Your task to perform on an android device: turn off priority inbox in the gmail app Image 0: 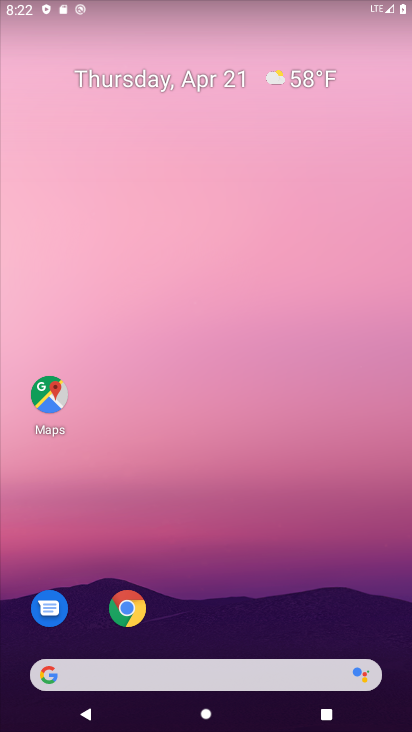
Step 0: drag from (295, 626) to (246, 51)
Your task to perform on an android device: turn off priority inbox in the gmail app Image 1: 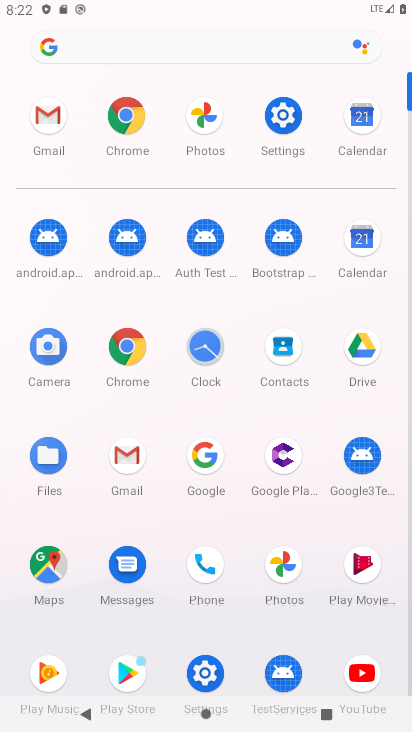
Step 1: click (52, 113)
Your task to perform on an android device: turn off priority inbox in the gmail app Image 2: 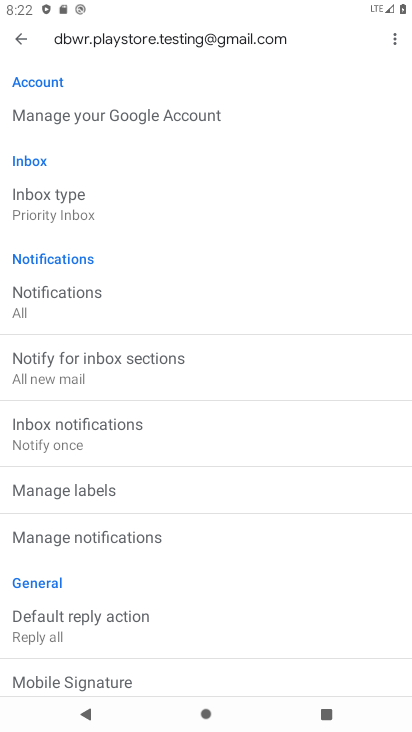
Step 2: click (53, 199)
Your task to perform on an android device: turn off priority inbox in the gmail app Image 3: 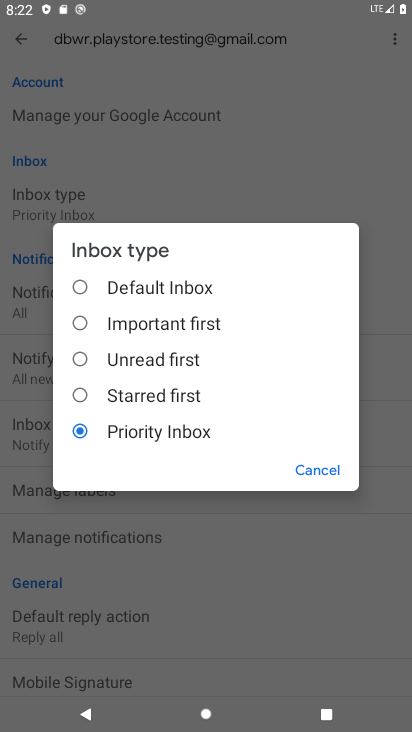
Step 3: click (78, 280)
Your task to perform on an android device: turn off priority inbox in the gmail app Image 4: 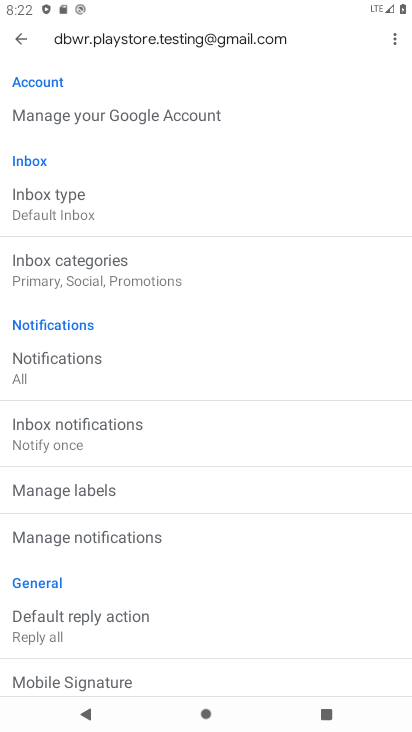
Step 4: task complete